Your task to perform on an android device: turn pop-ups on in chrome Image 0: 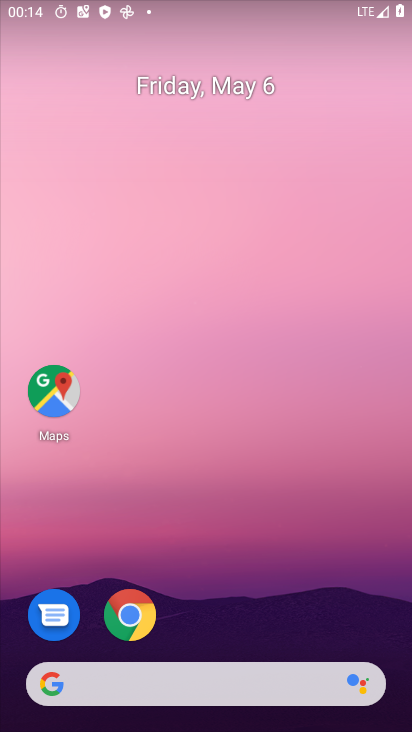
Step 0: click (130, 613)
Your task to perform on an android device: turn pop-ups on in chrome Image 1: 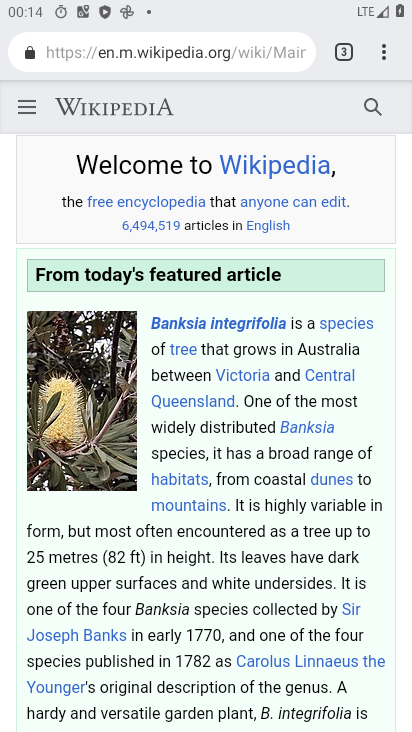
Step 1: click (376, 46)
Your task to perform on an android device: turn pop-ups on in chrome Image 2: 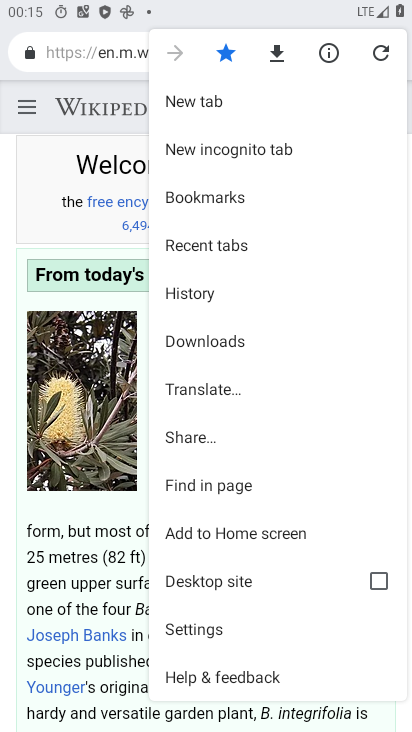
Step 2: click (223, 615)
Your task to perform on an android device: turn pop-ups on in chrome Image 3: 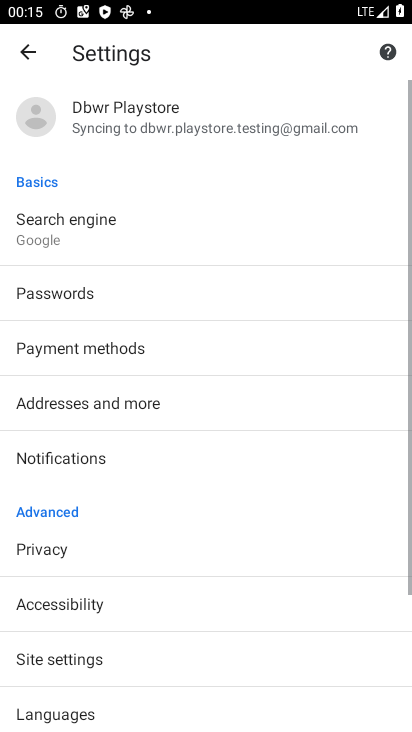
Step 3: drag from (139, 626) to (221, 209)
Your task to perform on an android device: turn pop-ups on in chrome Image 4: 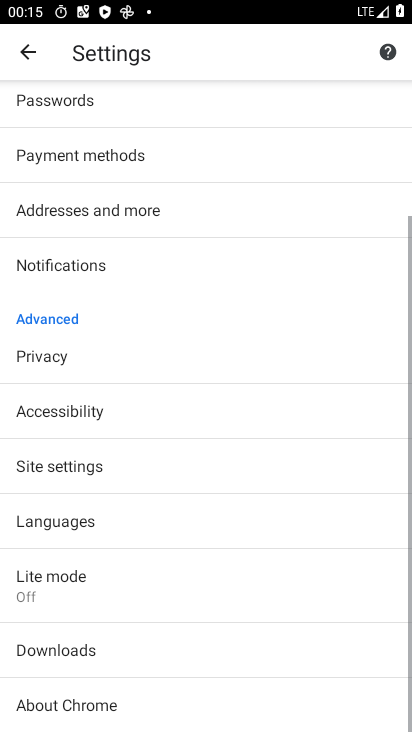
Step 4: click (55, 460)
Your task to perform on an android device: turn pop-ups on in chrome Image 5: 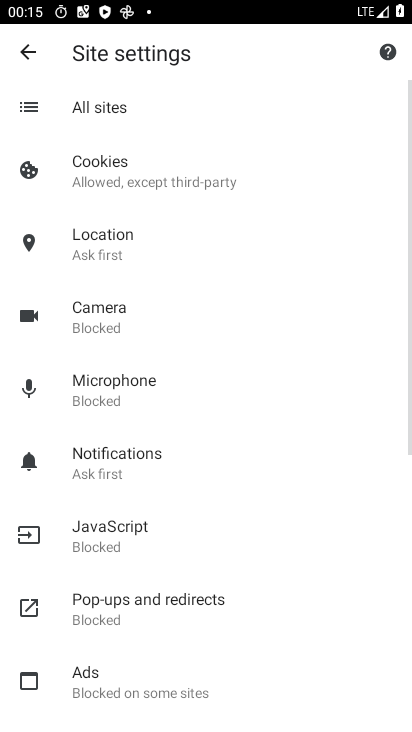
Step 5: click (143, 613)
Your task to perform on an android device: turn pop-ups on in chrome Image 6: 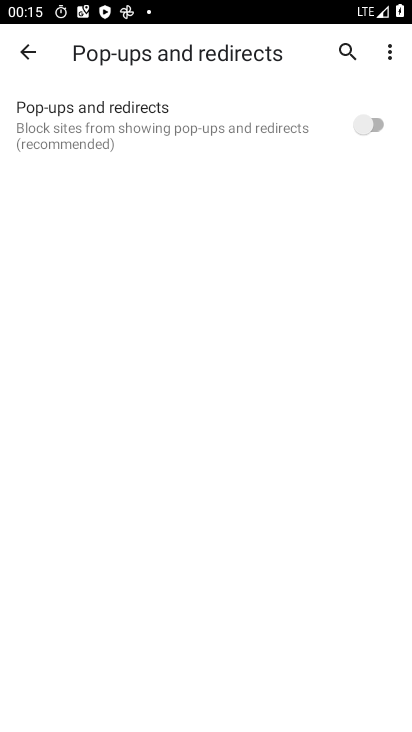
Step 6: click (356, 125)
Your task to perform on an android device: turn pop-ups on in chrome Image 7: 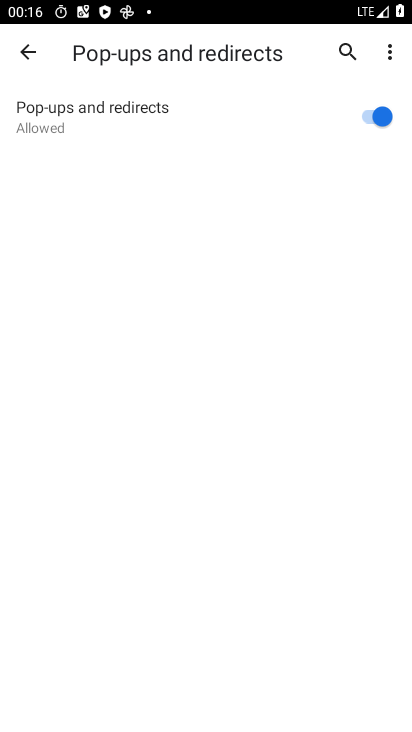
Step 7: task complete